Your task to perform on an android device: Search for vegetarian restaurants on Maps Image 0: 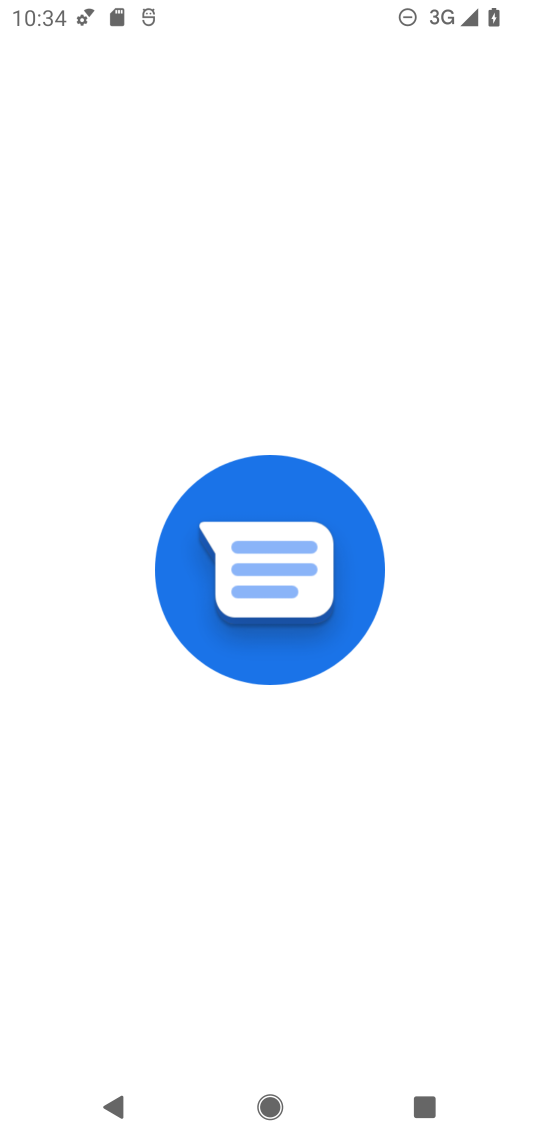
Step 0: press home button
Your task to perform on an android device: Search for vegetarian restaurants on Maps Image 1: 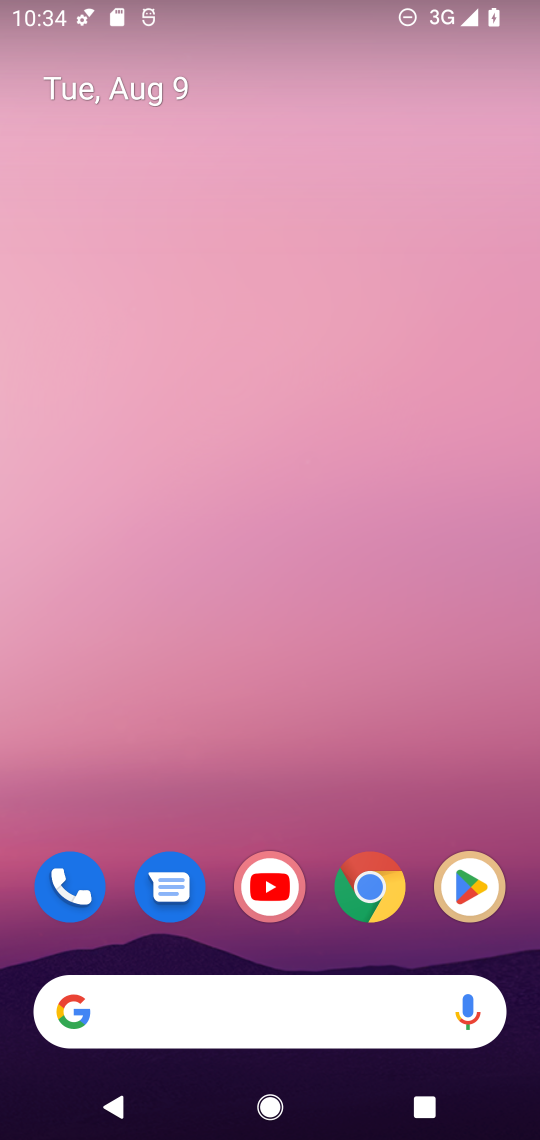
Step 1: drag from (267, 781) to (294, 82)
Your task to perform on an android device: Search for vegetarian restaurants on Maps Image 2: 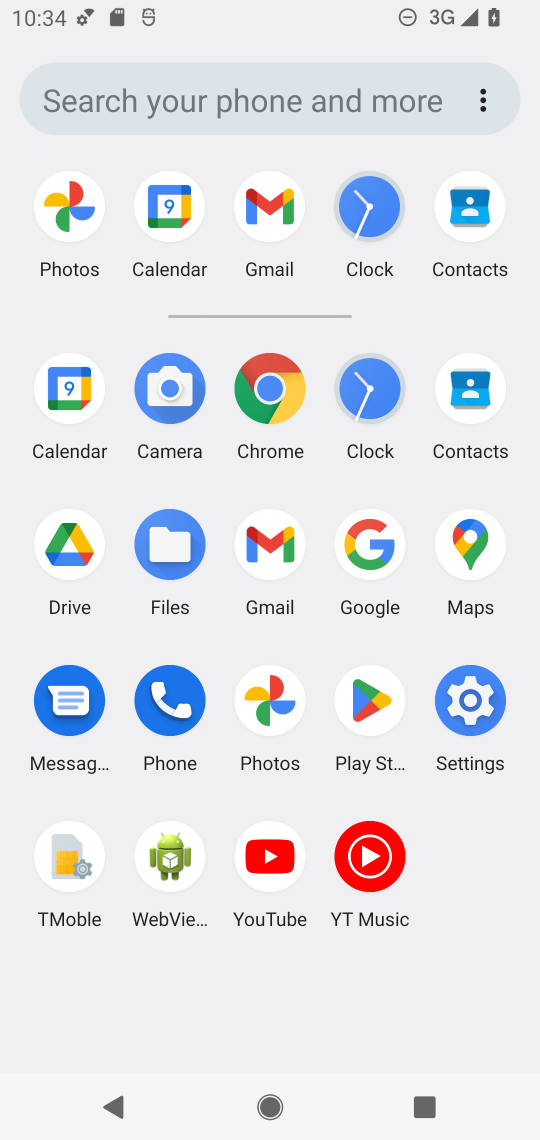
Step 2: click (459, 553)
Your task to perform on an android device: Search for vegetarian restaurants on Maps Image 3: 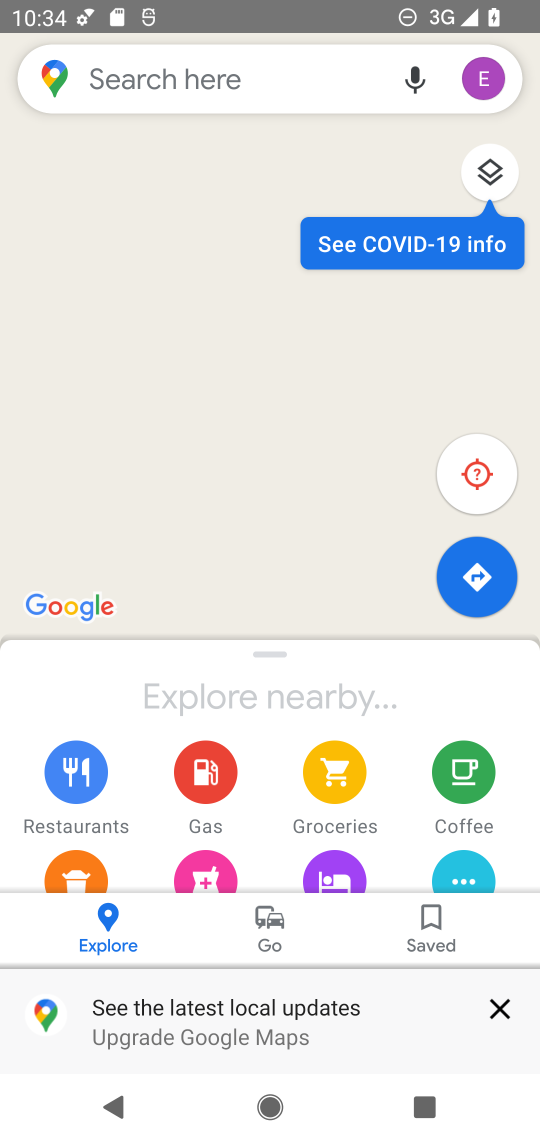
Step 3: click (189, 71)
Your task to perform on an android device: Search for vegetarian restaurants on Maps Image 4: 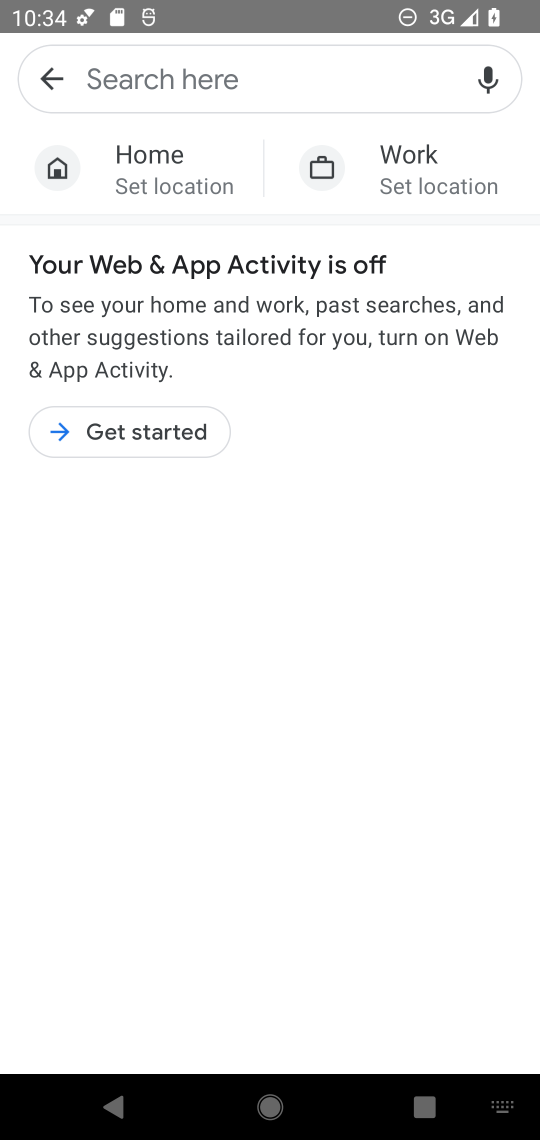
Step 4: type "vegetarian restaurants"
Your task to perform on an android device: Search for vegetarian restaurants on Maps Image 5: 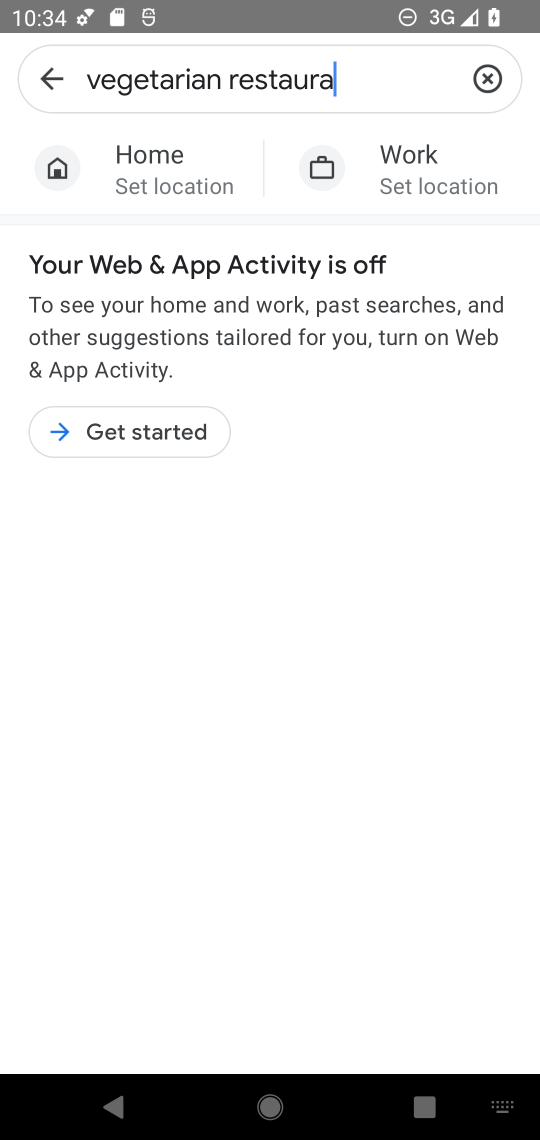
Step 5: type ""
Your task to perform on an android device: Search for vegetarian restaurants on Maps Image 6: 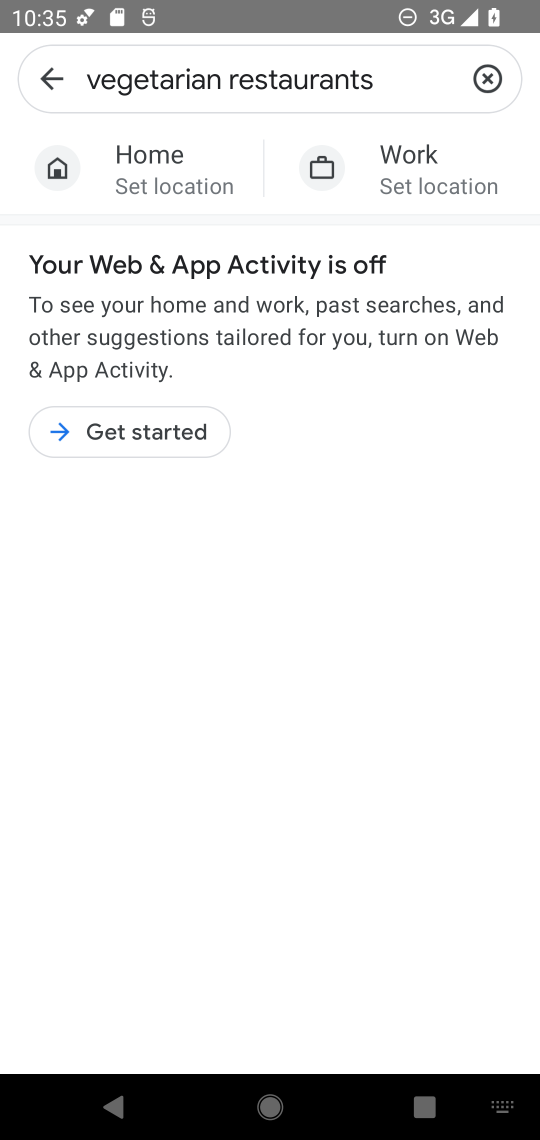
Step 6: task complete